Your task to perform on an android device: Open network settings Image 0: 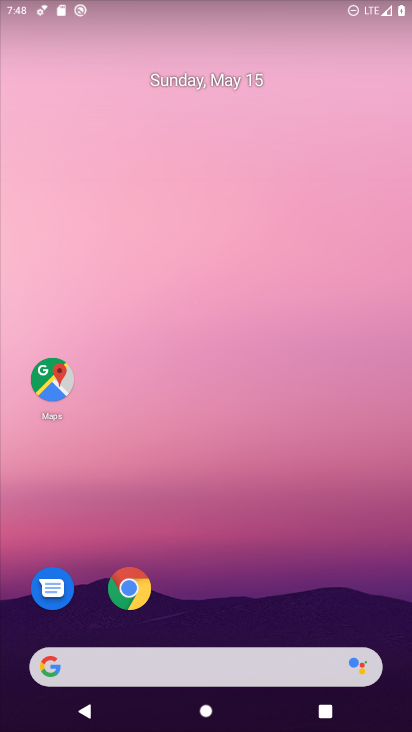
Step 0: drag from (311, 512) to (202, 55)
Your task to perform on an android device: Open network settings Image 1: 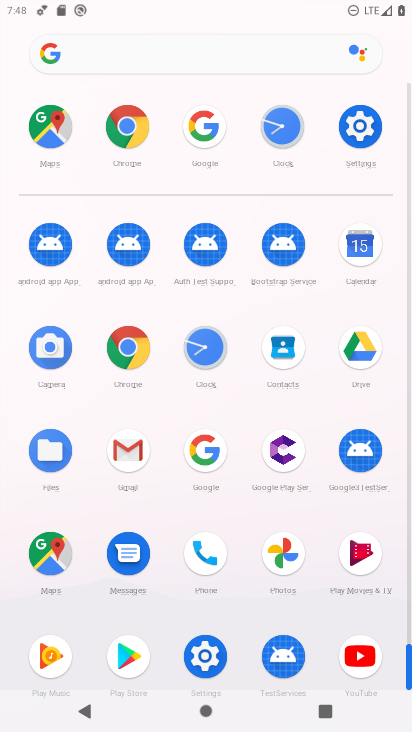
Step 1: click (208, 661)
Your task to perform on an android device: Open network settings Image 2: 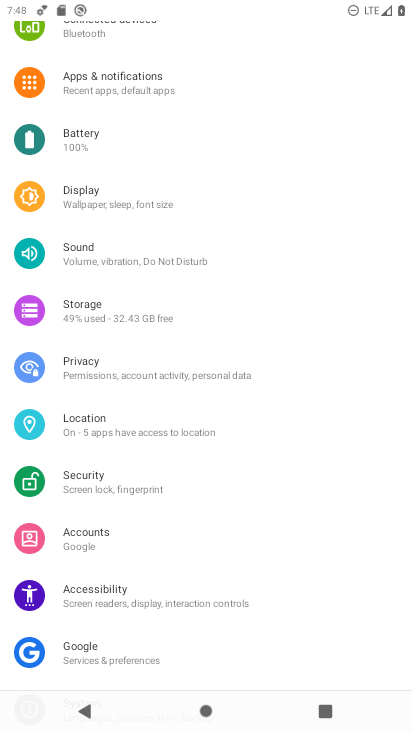
Step 2: drag from (189, 72) to (218, 584)
Your task to perform on an android device: Open network settings Image 3: 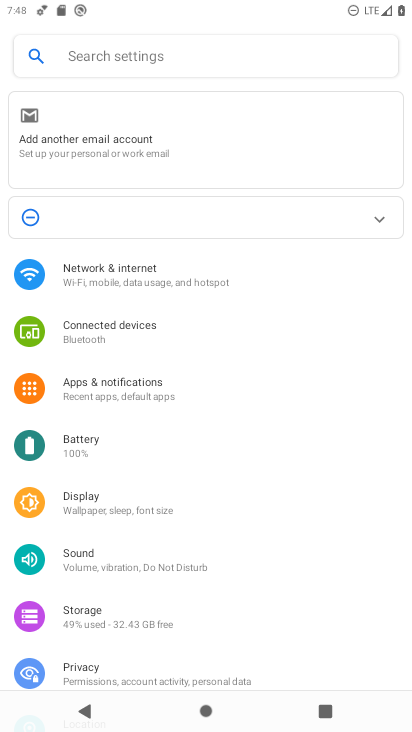
Step 3: click (177, 293)
Your task to perform on an android device: Open network settings Image 4: 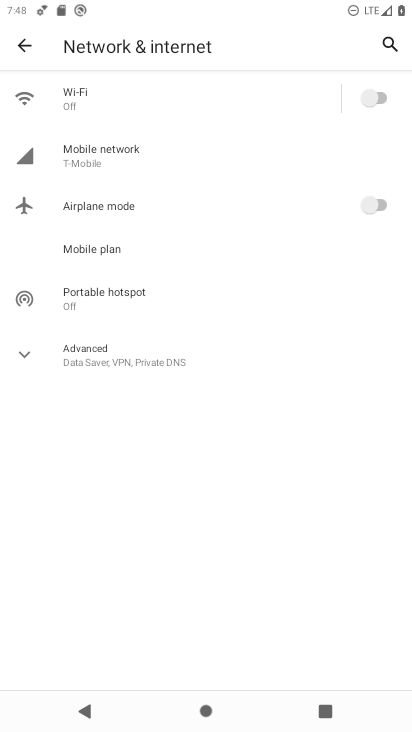
Step 4: task complete